Your task to perform on an android device: remove spam from my inbox in the gmail app Image 0: 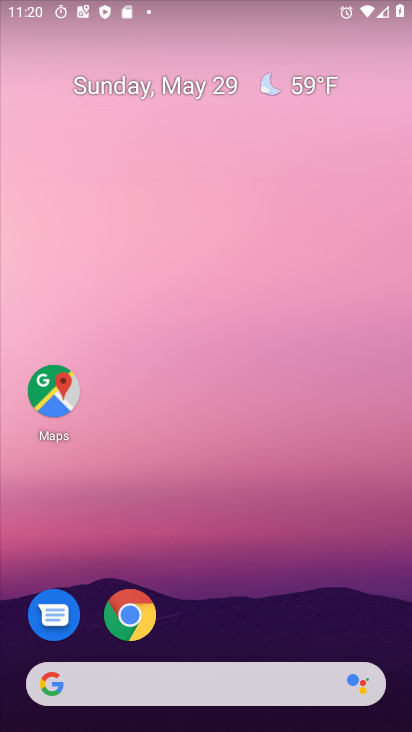
Step 0: drag from (218, 626) to (245, 81)
Your task to perform on an android device: remove spam from my inbox in the gmail app Image 1: 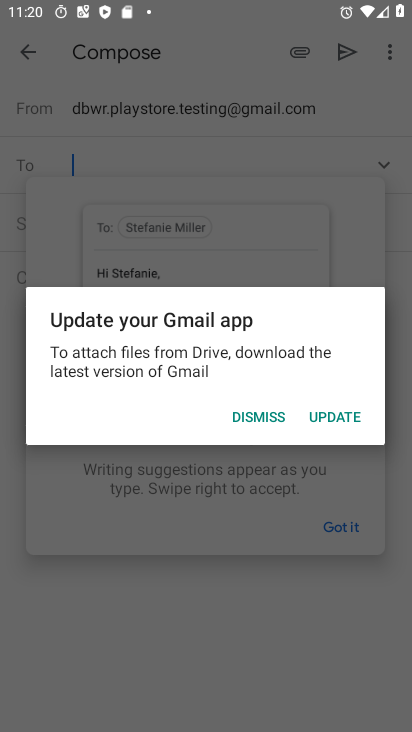
Step 1: press home button
Your task to perform on an android device: remove spam from my inbox in the gmail app Image 2: 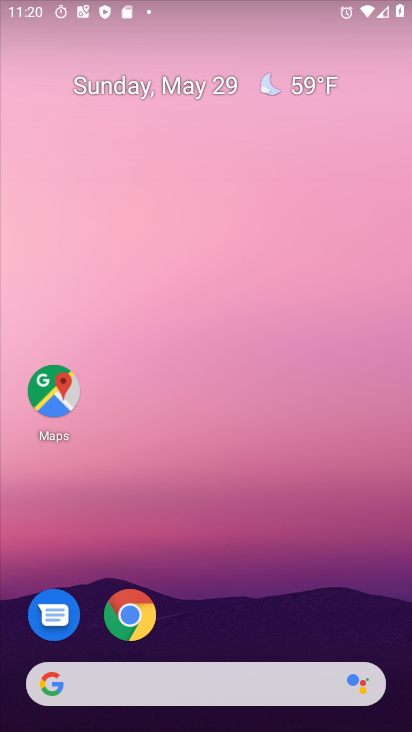
Step 2: drag from (201, 618) to (202, 115)
Your task to perform on an android device: remove spam from my inbox in the gmail app Image 3: 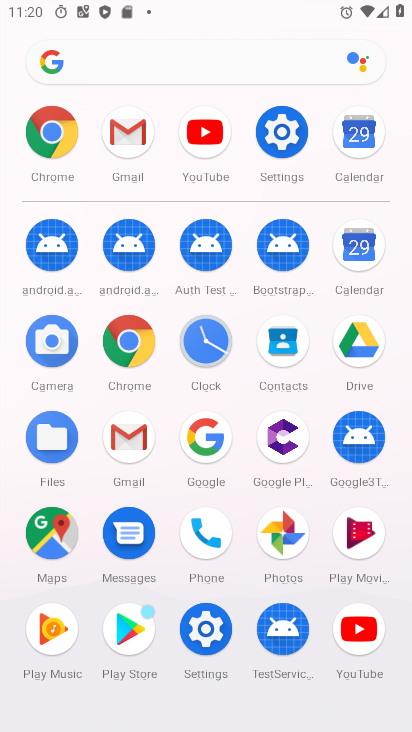
Step 3: click (129, 428)
Your task to perform on an android device: remove spam from my inbox in the gmail app Image 4: 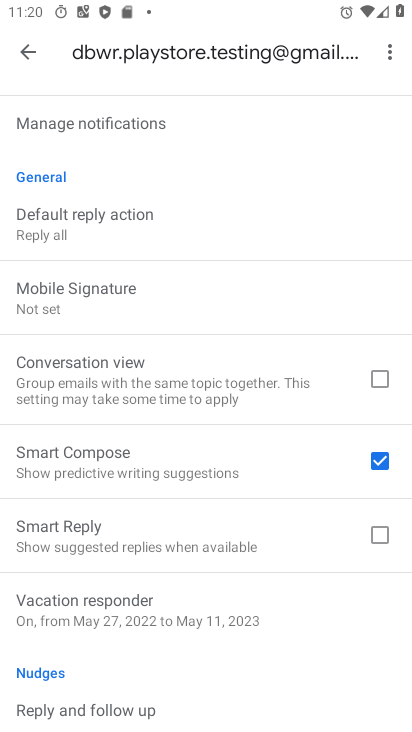
Step 4: press back button
Your task to perform on an android device: remove spam from my inbox in the gmail app Image 5: 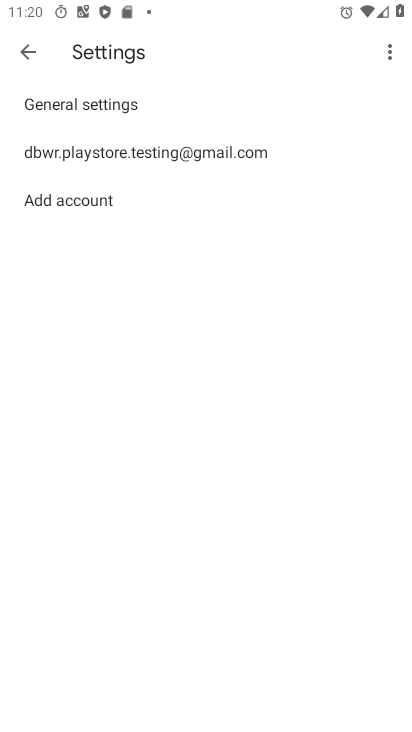
Step 5: press back button
Your task to perform on an android device: remove spam from my inbox in the gmail app Image 6: 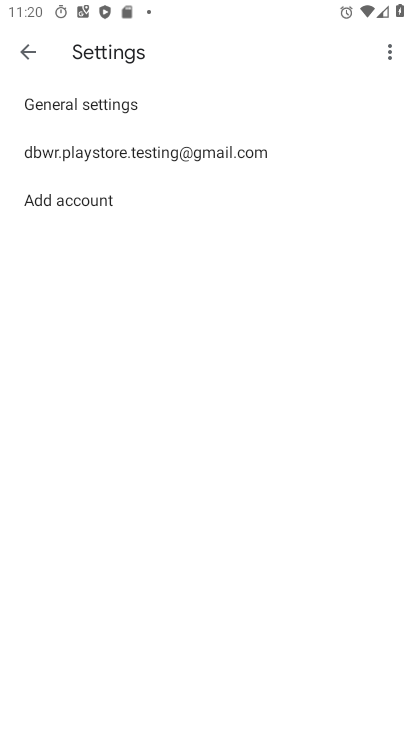
Step 6: press back button
Your task to perform on an android device: remove spam from my inbox in the gmail app Image 7: 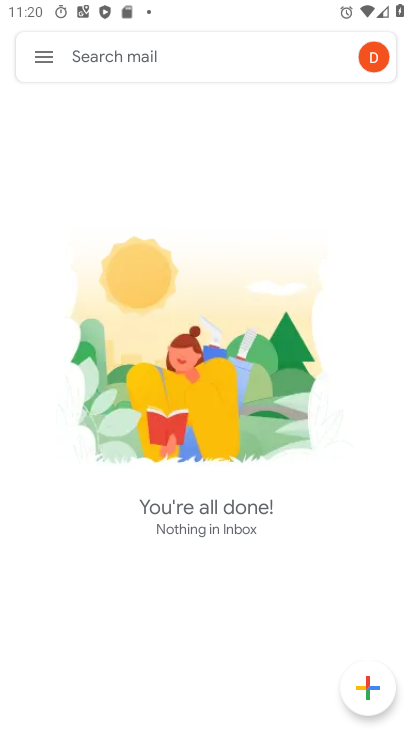
Step 7: click (47, 55)
Your task to perform on an android device: remove spam from my inbox in the gmail app Image 8: 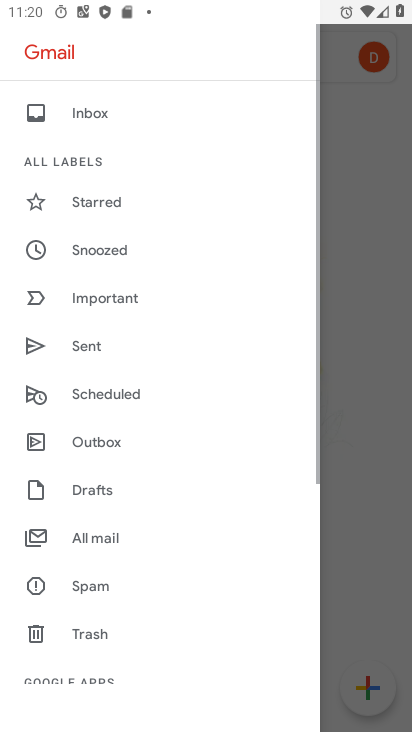
Step 8: click (126, 113)
Your task to perform on an android device: remove spam from my inbox in the gmail app Image 9: 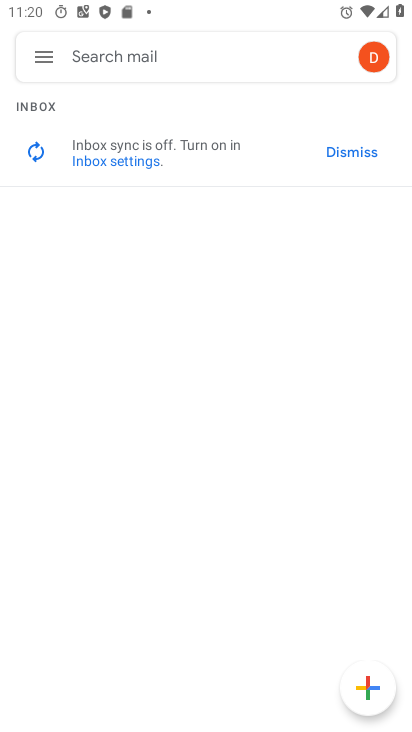
Step 9: task complete